Your task to perform on an android device: all mails in gmail Image 0: 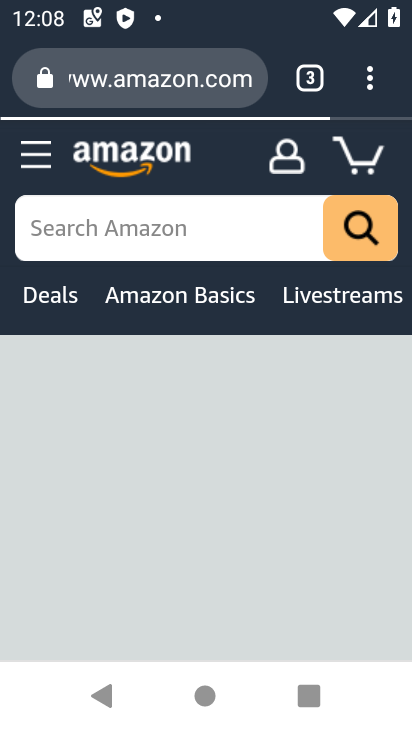
Step 0: press back button
Your task to perform on an android device: all mails in gmail Image 1: 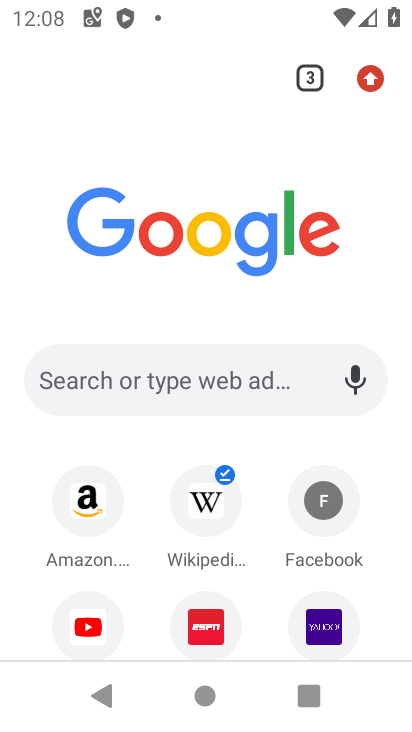
Step 1: press back button
Your task to perform on an android device: all mails in gmail Image 2: 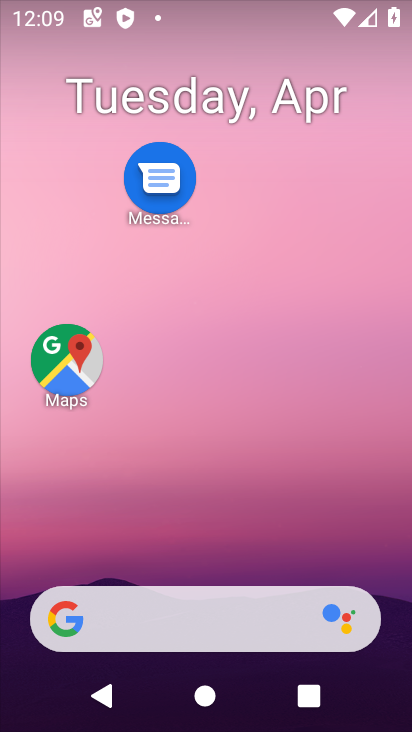
Step 2: drag from (202, 716) to (207, 24)
Your task to perform on an android device: all mails in gmail Image 3: 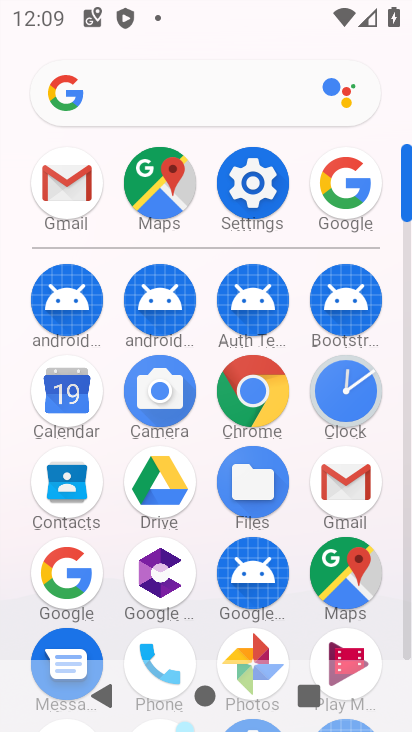
Step 3: click (349, 473)
Your task to perform on an android device: all mails in gmail Image 4: 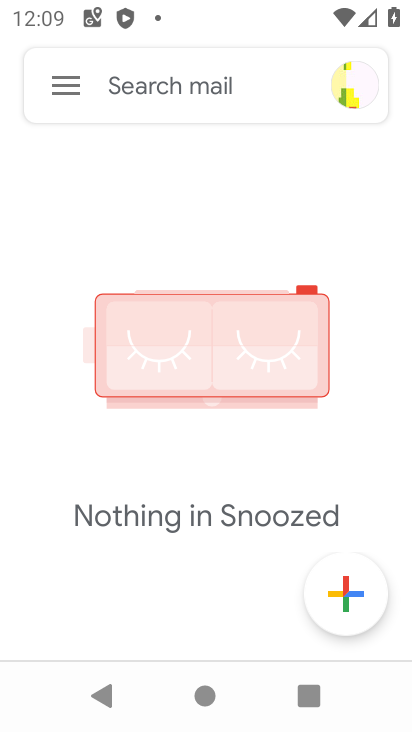
Step 4: click (61, 77)
Your task to perform on an android device: all mails in gmail Image 5: 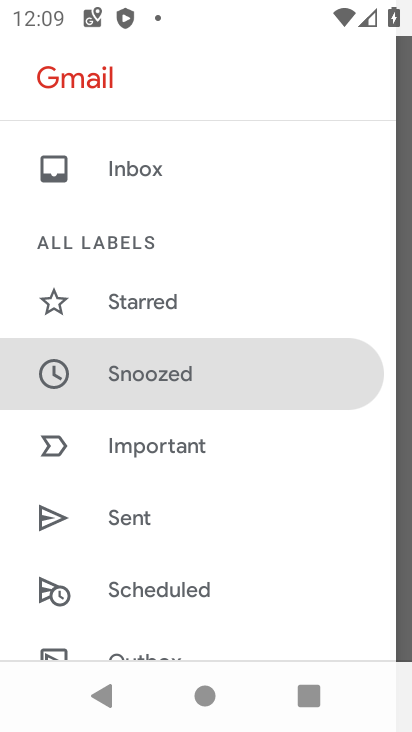
Step 5: drag from (154, 620) to (154, 189)
Your task to perform on an android device: all mails in gmail Image 6: 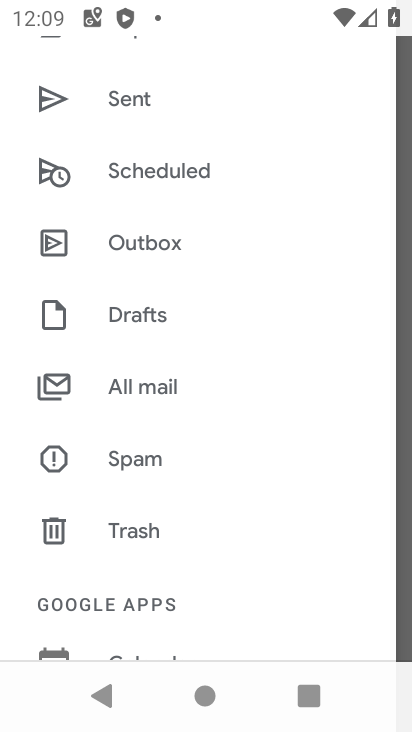
Step 6: click (146, 385)
Your task to perform on an android device: all mails in gmail Image 7: 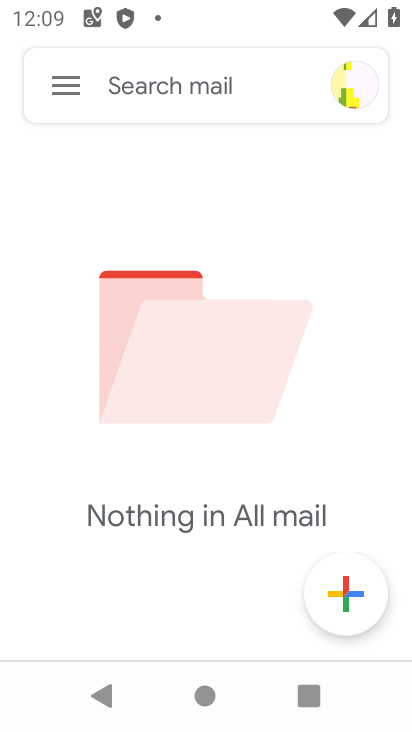
Step 7: task complete